Your task to perform on an android device: Go to calendar. Show me events next week Image 0: 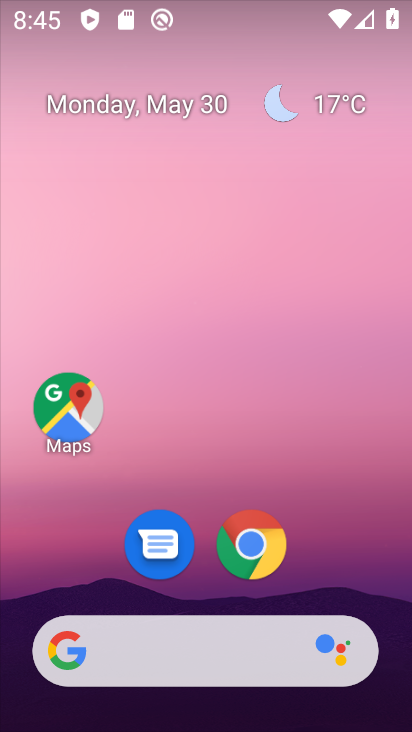
Step 0: drag from (335, 550) to (292, 85)
Your task to perform on an android device: Go to calendar. Show me events next week Image 1: 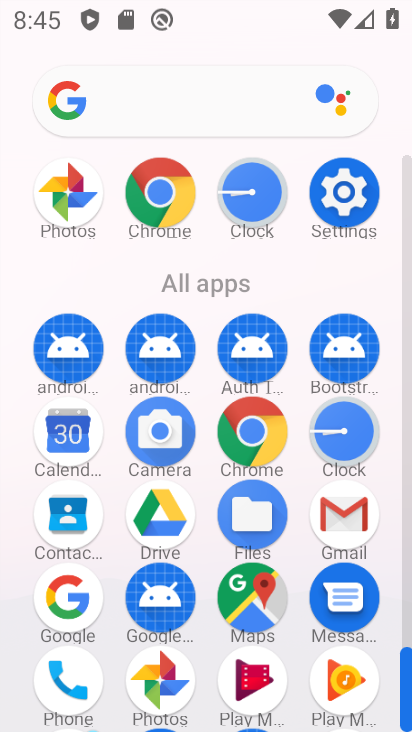
Step 1: click (68, 434)
Your task to perform on an android device: Go to calendar. Show me events next week Image 2: 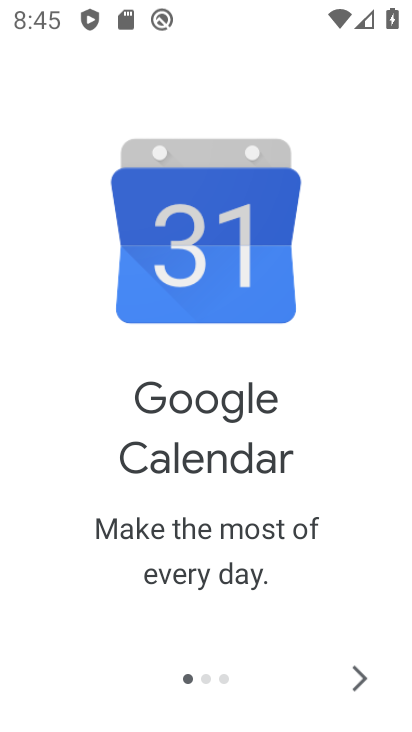
Step 2: click (362, 674)
Your task to perform on an android device: Go to calendar. Show me events next week Image 3: 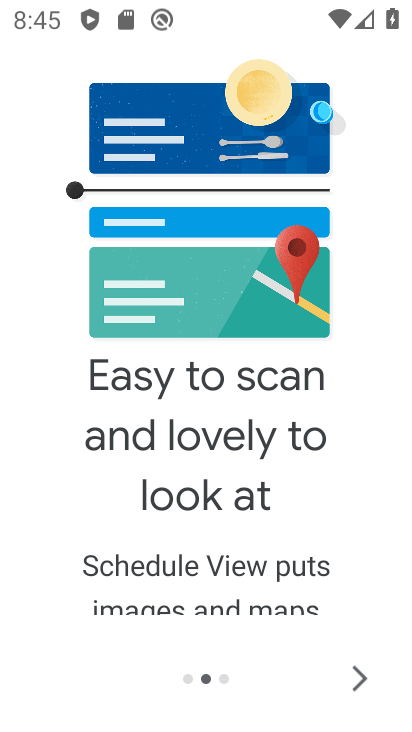
Step 3: click (362, 674)
Your task to perform on an android device: Go to calendar. Show me events next week Image 4: 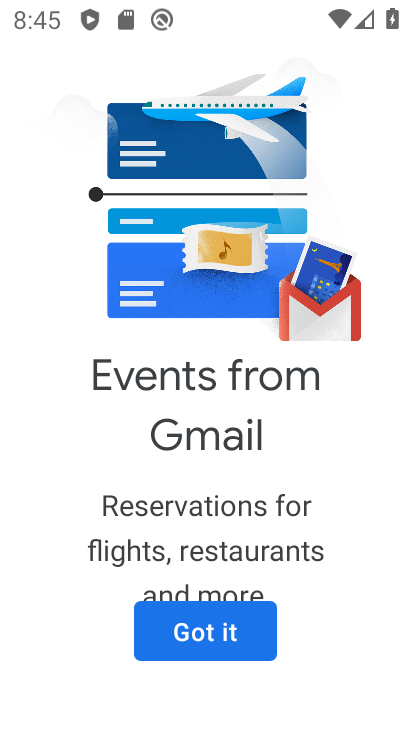
Step 4: click (191, 632)
Your task to perform on an android device: Go to calendar. Show me events next week Image 5: 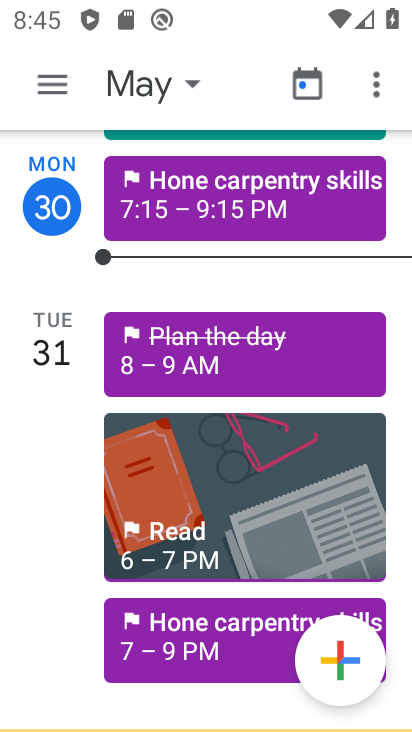
Step 5: click (194, 83)
Your task to perform on an android device: Go to calendar. Show me events next week Image 6: 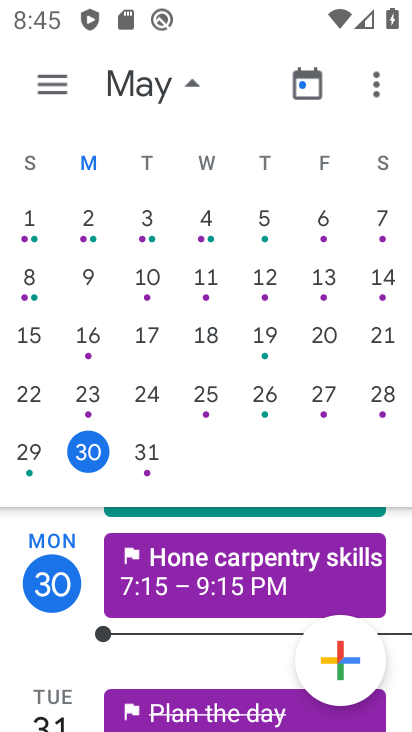
Step 6: drag from (385, 351) to (0, 336)
Your task to perform on an android device: Go to calendar. Show me events next week Image 7: 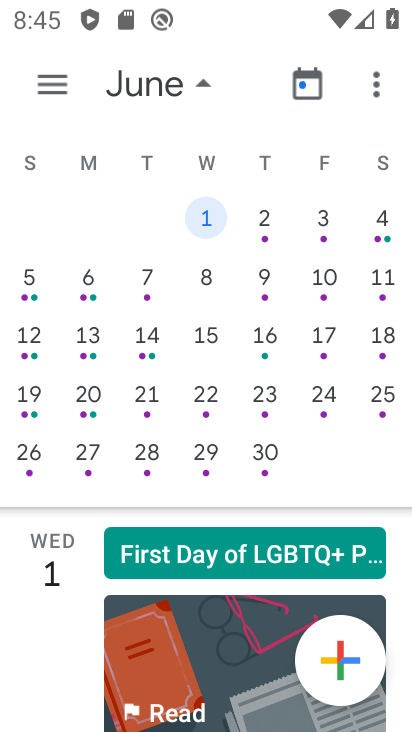
Step 7: click (82, 268)
Your task to perform on an android device: Go to calendar. Show me events next week Image 8: 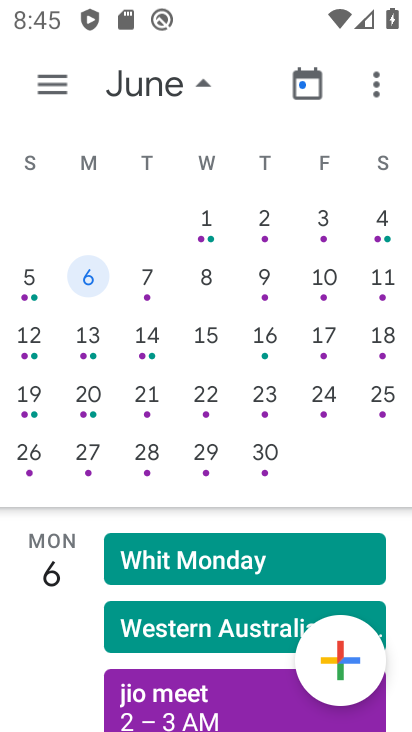
Step 8: click (56, 82)
Your task to perform on an android device: Go to calendar. Show me events next week Image 9: 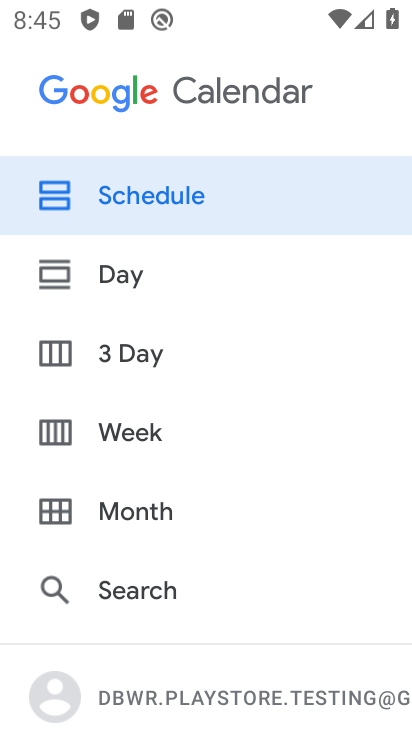
Step 9: click (111, 437)
Your task to perform on an android device: Go to calendar. Show me events next week Image 10: 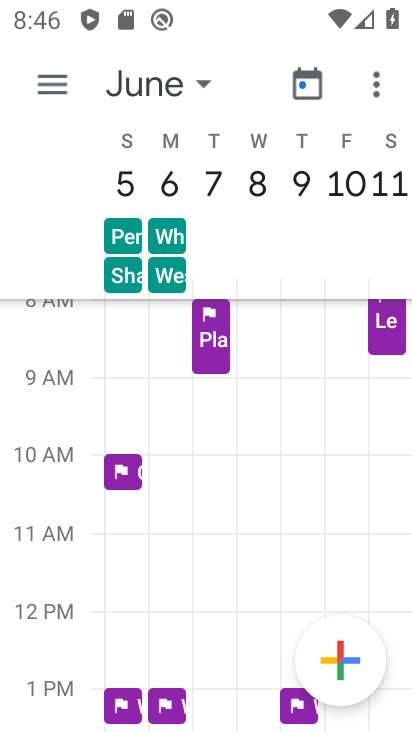
Step 10: task complete